Your task to perform on an android device: find photos in the google photos app Image 0: 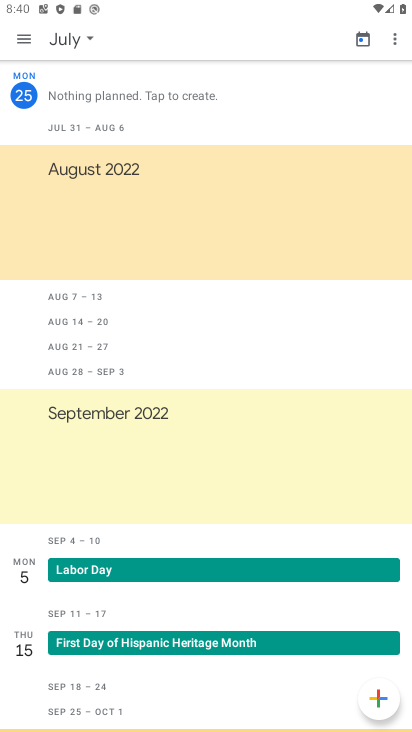
Step 0: press home button
Your task to perform on an android device: find photos in the google photos app Image 1: 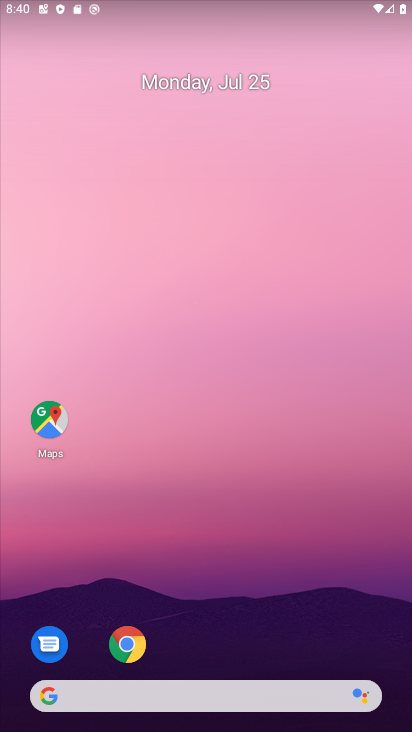
Step 1: drag from (288, 601) to (296, 19)
Your task to perform on an android device: find photos in the google photos app Image 2: 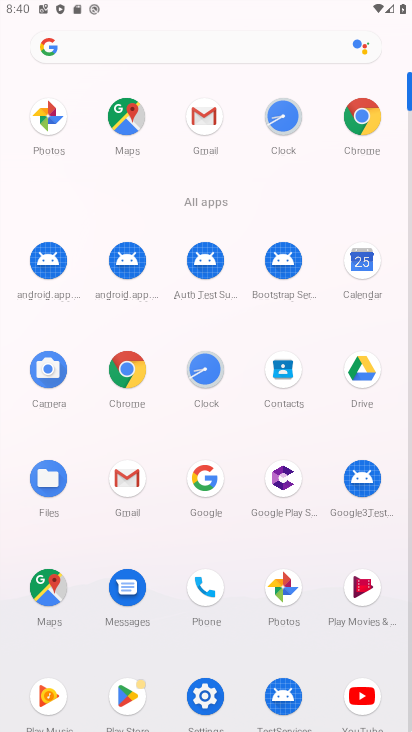
Step 2: click (285, 585)
Your task to perform on an android device: find photos in the google photos app Image 3: 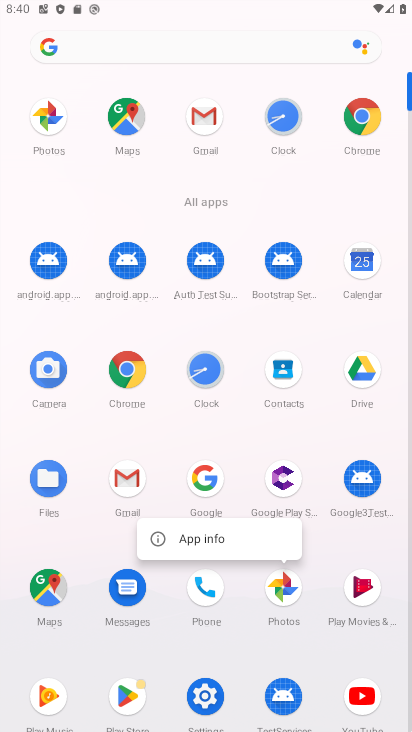
Step 3: click (282, 590)
Your task to perform on an android device: find photos in the google photos app Image 4: 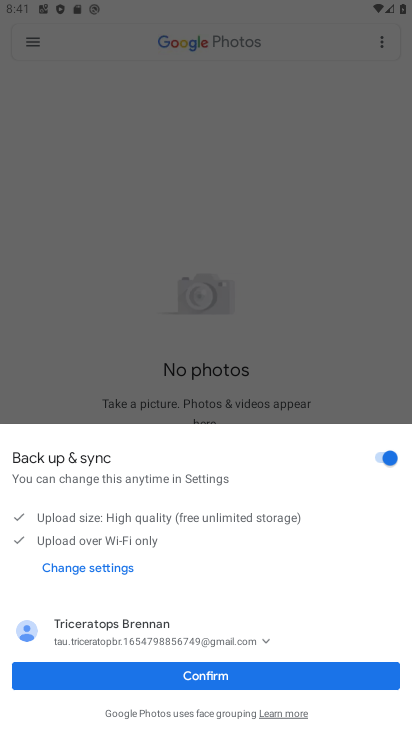
Step 4: click (295, 668)
Your task to perform on an android device: find photos in the google photos app Image 5: 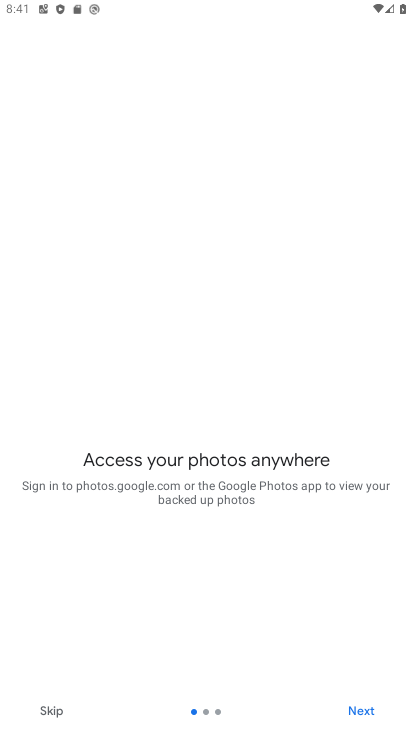
Step 5: click (46, 709)
Your task to perform on an android device: find photos in the google photos app Image 6: 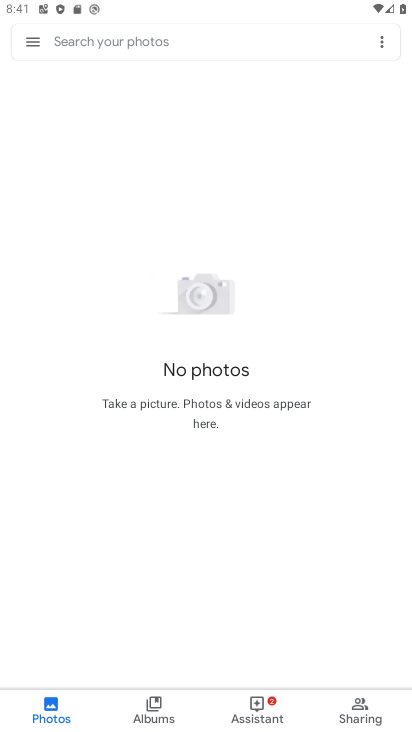
Step 6: click (46, 709)
Your task to perform on an android device: find photos in the google photos app Image 7: 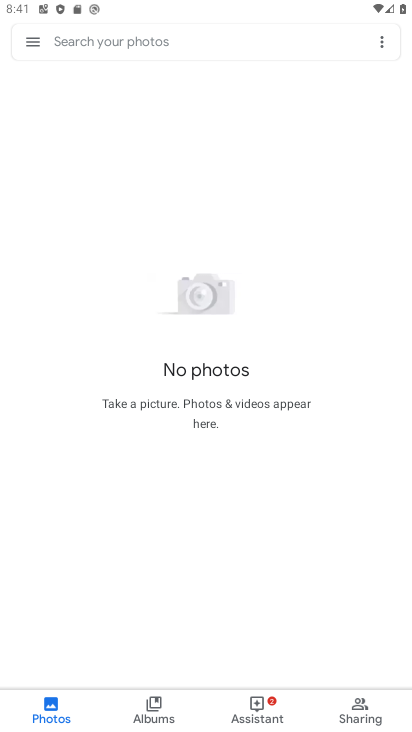
Step 7: task complete